Your task to perform on an android device: Go to ESPN.com Image 0: 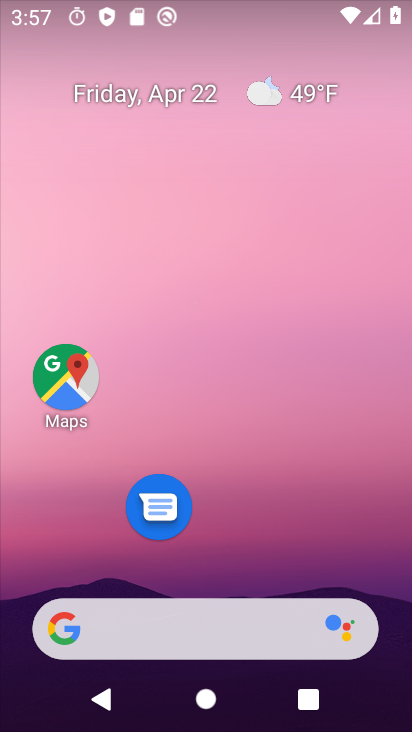
Step 0: drag from (234, 407) to (364, 28)
Your task to perform on an android device: Go to ESPN.com Image 1: 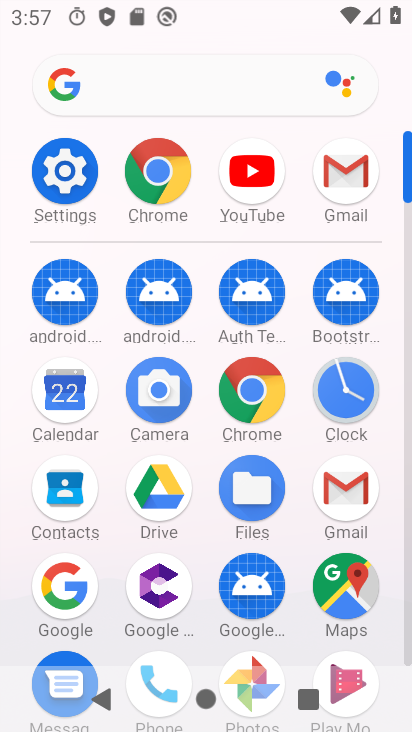
Step 1: click (181, 186)
Your task to perform on an android device: Go to ESPN.com Image 2: 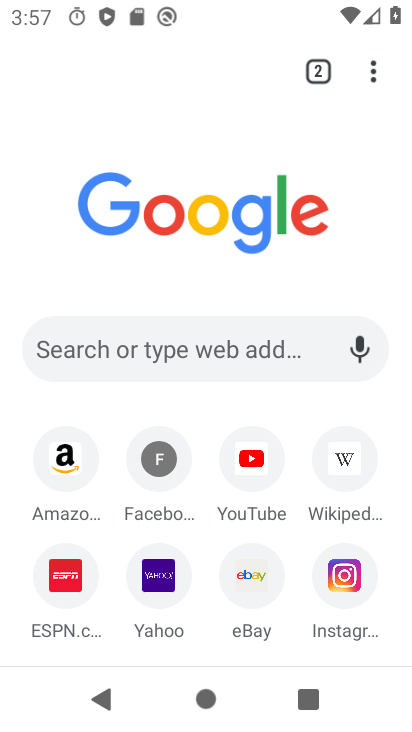
Step 2: click (57, 579)
Your task to perform on an android device: Go to ESPN.com Image 3: 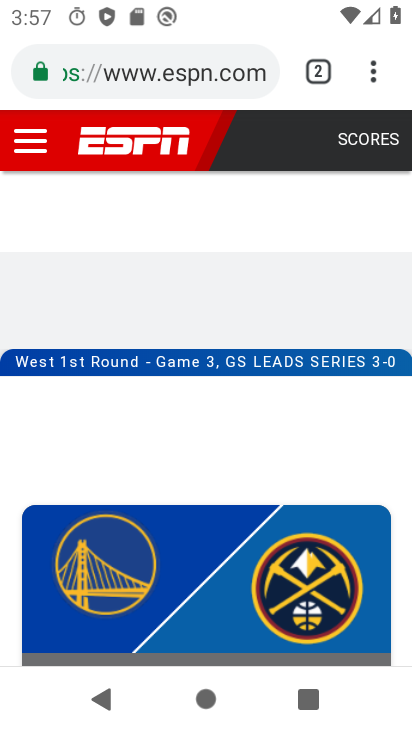
Step 3: task complete